Your task to perform on an android device: change the clock display to digital Image 0: 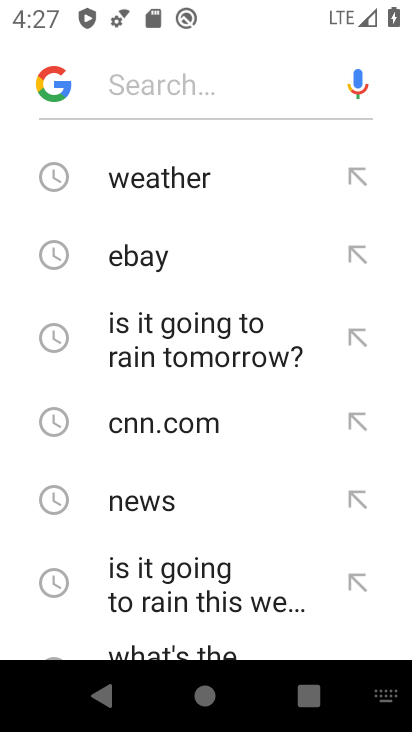
Step 0: press back button
Your task to perform on an android device: change the clock display to digital Image 1: 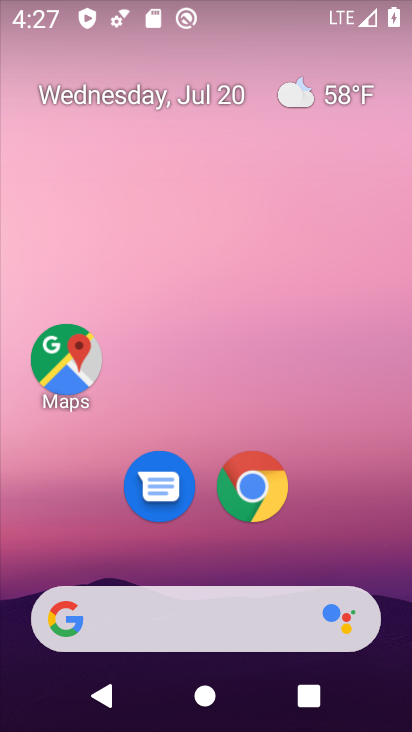
Step 1: drag from (158, 559) to (304, 2)
Your task to perform on an android device: change the clock display to digital Image 2: 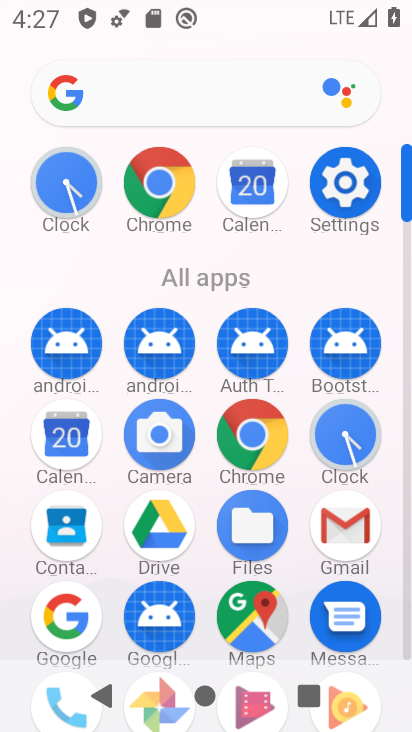
Step 2: click (347, 431)
Your task to perform on an android device: change the clock display to digital Image 3: 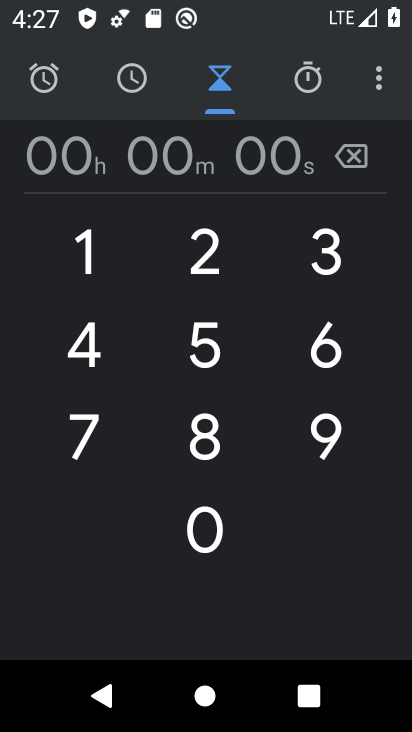
Step 3: click (386, 81)
Your task to perform on an android device: change the clock display to digital Image 4: 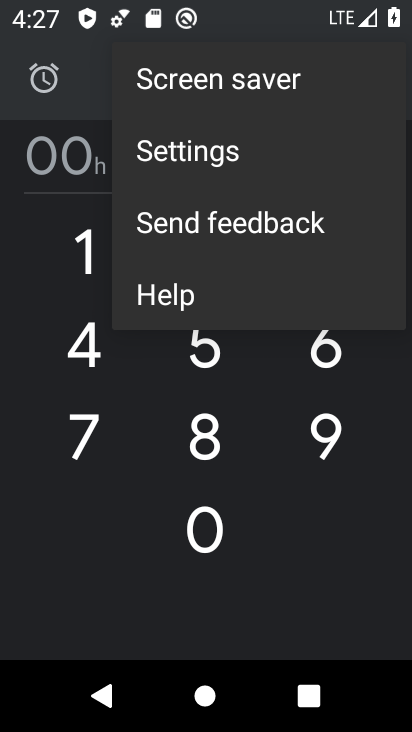
Step 4: click (252, 120)
Your task to perform on an android device: change the clock display to digital Image 5: 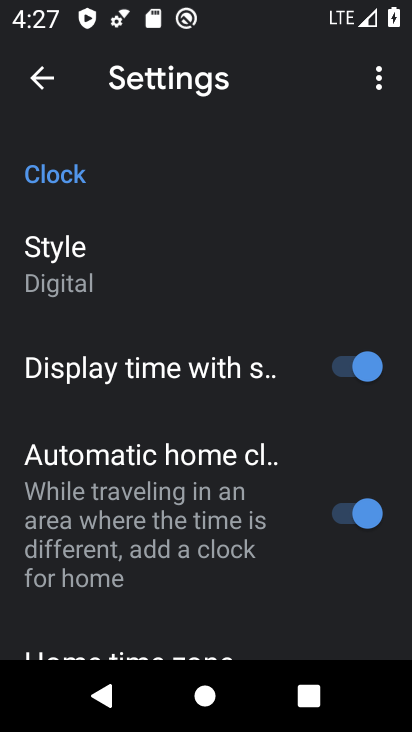
Step 5: task complete